Your task to perform on an android device: What's the news? Image 0: 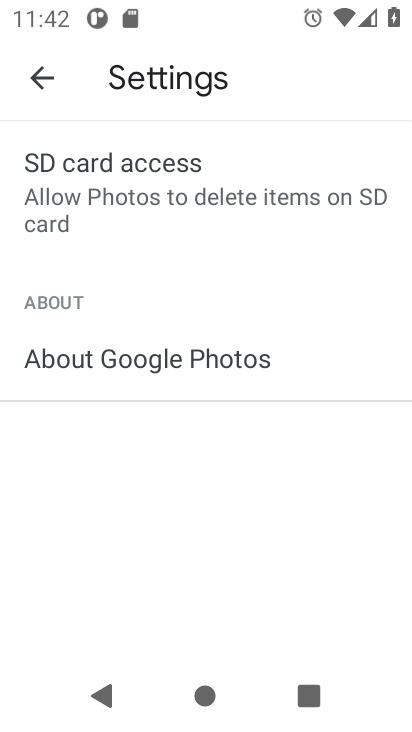
Step 0: press home button
Your task to perform on an android device: What's the news? Image 1: 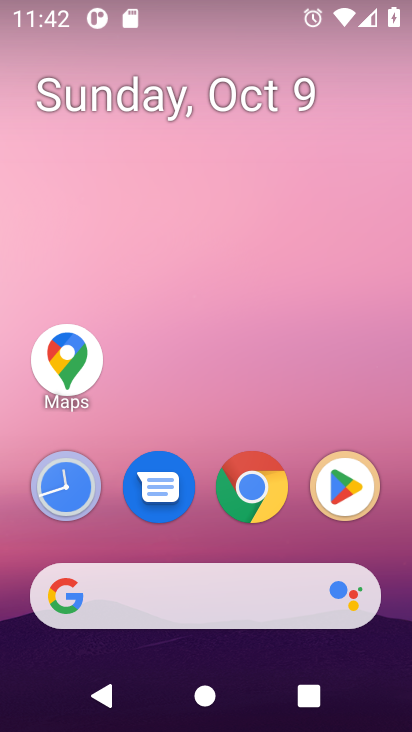
Step 1: drag from (220, 553) to (291, 36)
Your task to perform on an android device: What's the news? Image 2: 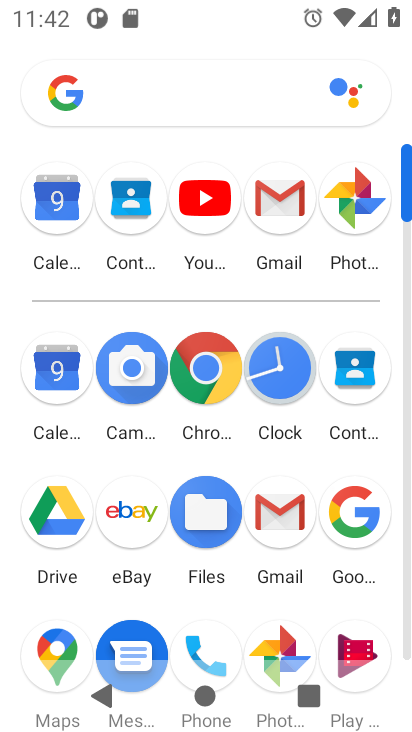
Step 2: click (204, 364)
Your task to perform on an android device: What's the news? Image 3: 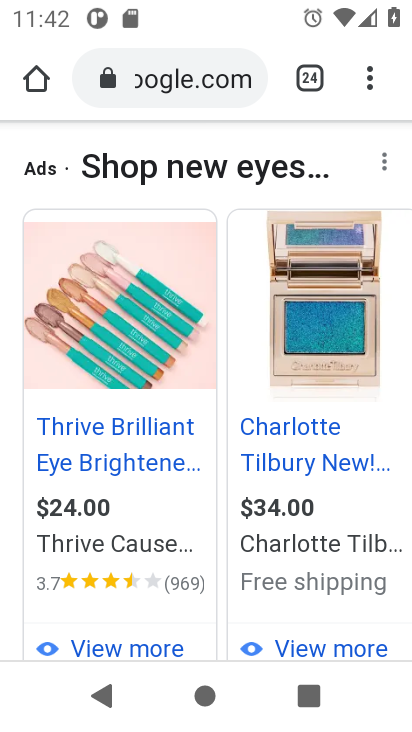
Step 3: drag from (186, 186) to (177, 706)
Your task to perform on an android device: What's the news? Image 4: 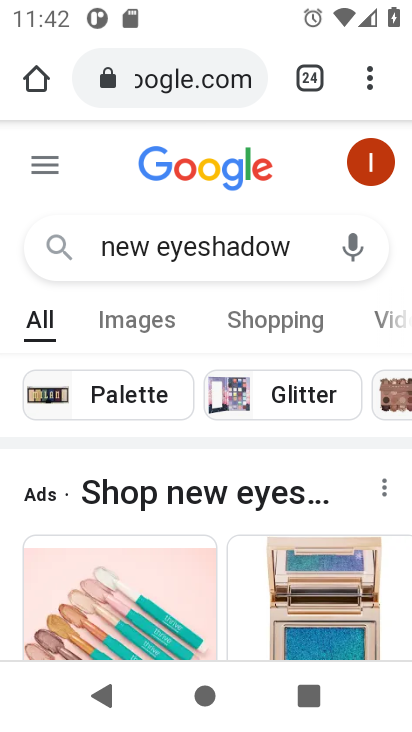
Step 4: drag from (370, 88) to (92, 157)
Your task to perform on an android device: What's the news? Image 5: 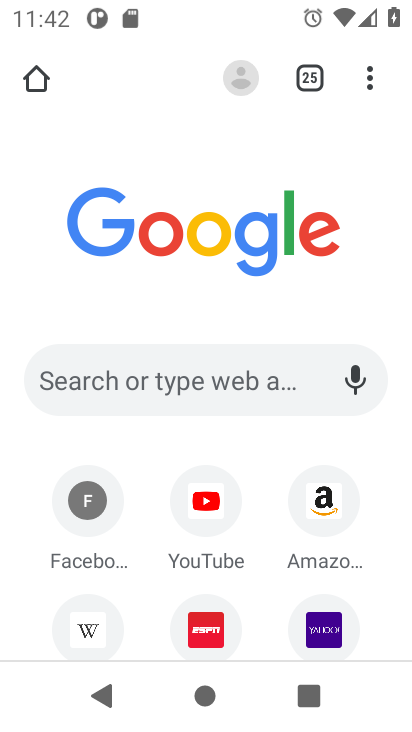
Step 5: click (145, 375)
Your task to perform on an android device: What's the news? Image 6: 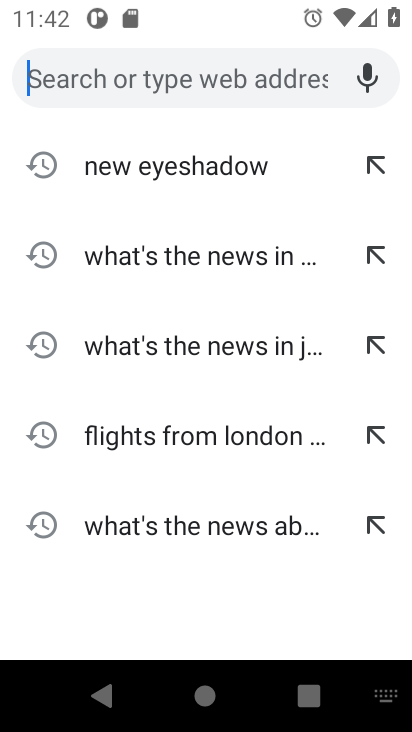
Step 6: type "What's the news?"
Your task to perform on an android device: What's the news? Image 7: 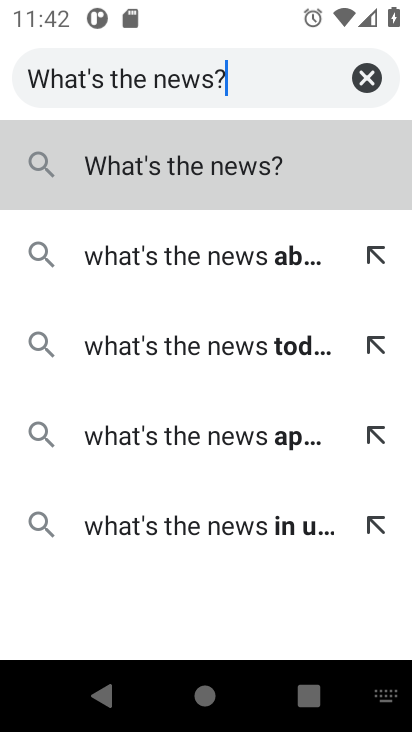
Step 7: type ""
Your task to perform on an android device: What's the news? Image 8: 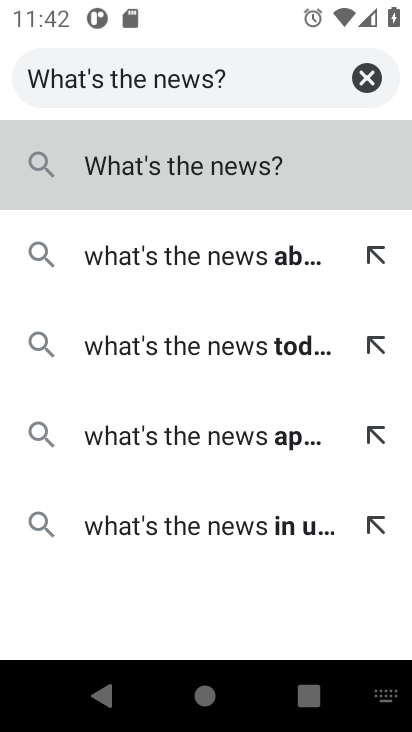
Step 8: click (267, 162)
Your task to perform on an android device: What's the news? Image 9: 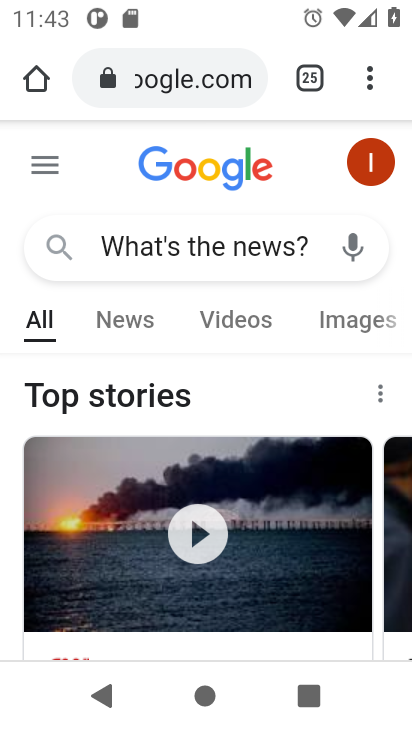
Step 9: click (133, 320)
Your task to perform on an android device: What's the news? Image 10: 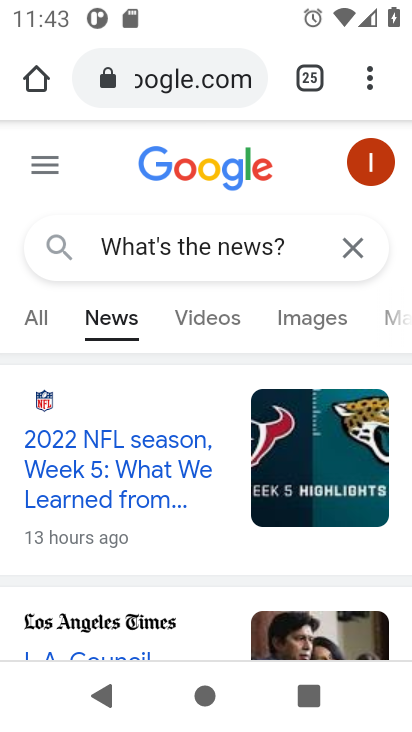
Step 10: task complete